Your task to perform on an android device: read, delete, or share a saved page in the chrome app Image 0: 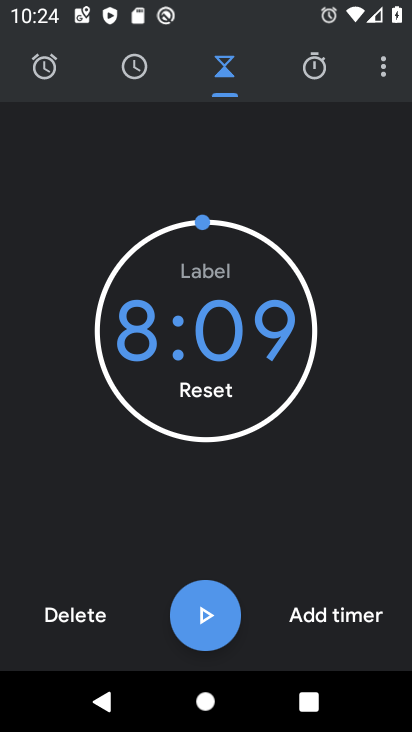
Step 0: press home button
Your task to perform on an android device: read, delete, or share a saved page in the chrome app Image 1: 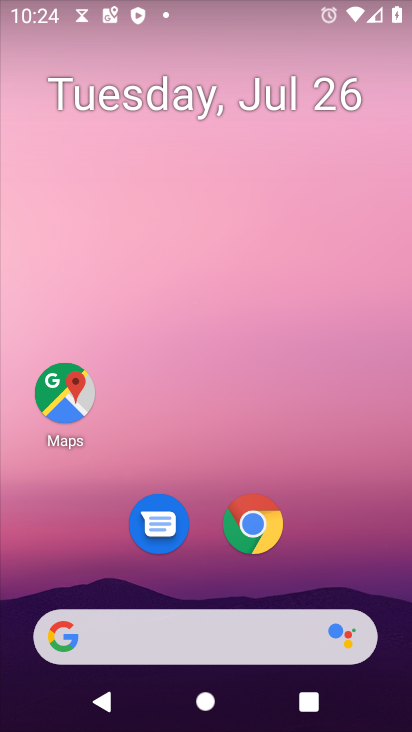
Step 1: click (254, 532)
Your task to perform on an android device: read, delete, or share a saved page in the chrome app Image 2: 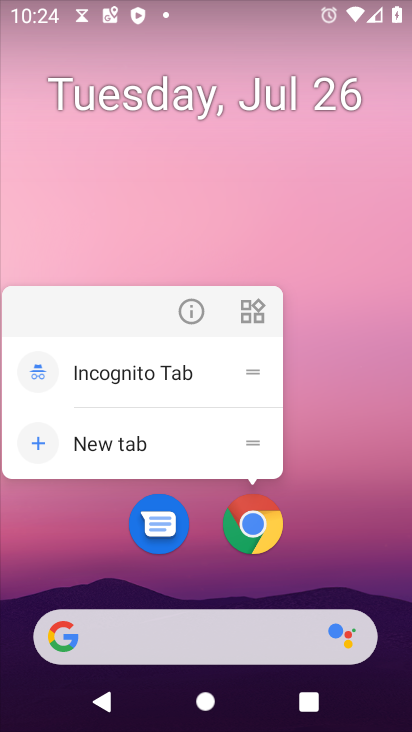
Step 2: click (258, 520)
Your task to perform on an android device: read, delete, or share a saved page in the chrome app Image 3: 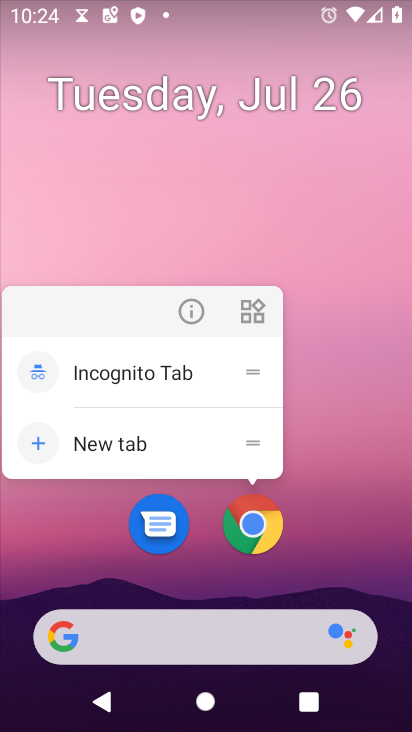
Step 3: click (258, 518)
Your task to perform on an android device: read, delete, or share a saved page in the chrome app Image 4: 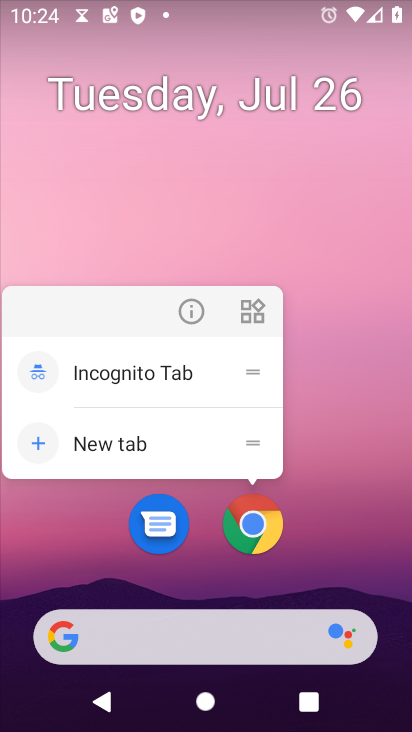
Step 4: click (258, 518)
Your task to perform on an android device: read, delete, or share a saved page in the chrome app Image 5: 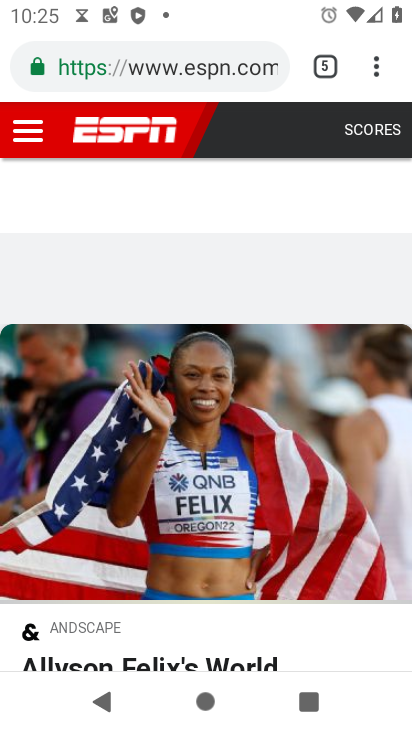
Step 5: drag from (375, 74) to (184, 435)
Your task to perform on an android device: read, delete, or share a saved page in the chrome app Image 6: 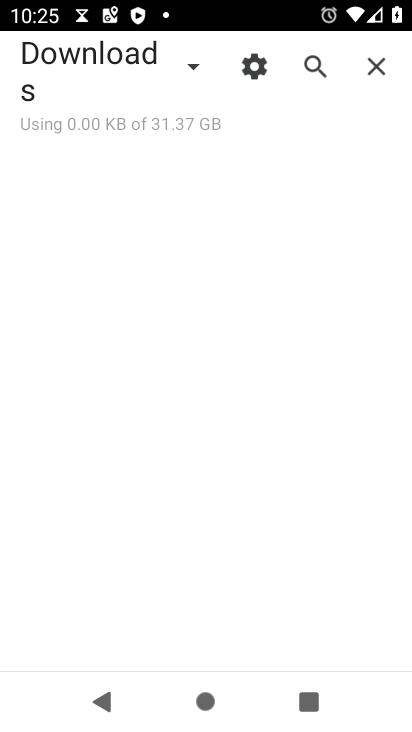
Step 6: click (172, 52)
Your task to perform on an android device: read, delete, or share a saved page in the chrome app Image 7: 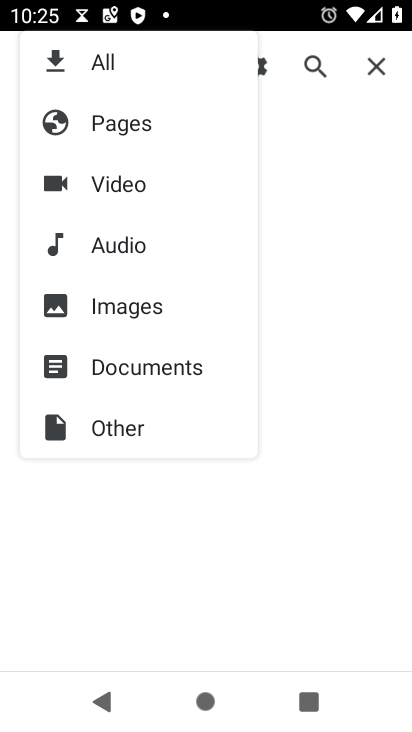
Step 7: click (128, 132)
Your task to perform on an android device: read, delete, or share a saved page in the chrome app Image 8: 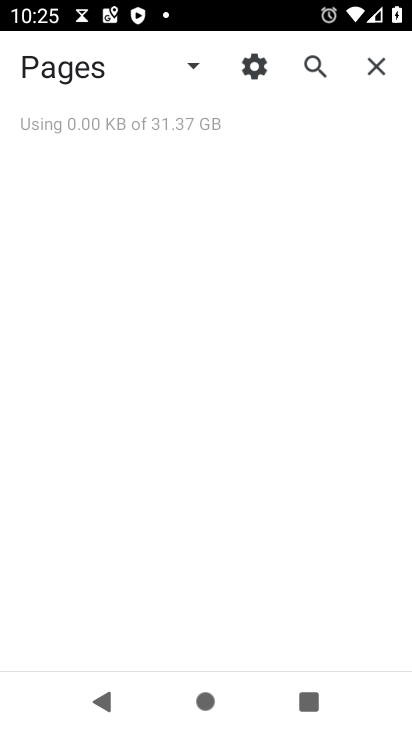
Step 8: task complete